Your task to perform on an android device: turn on improve location accuracy Image 0: 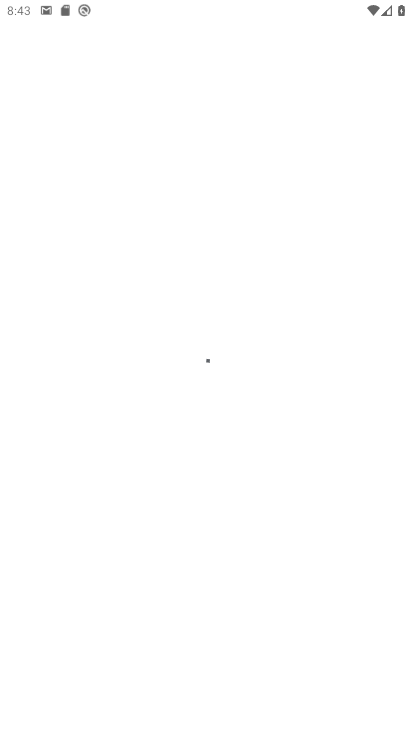
Step 0: press home button
Your task to perform on an android device: turn on improve location accuracy Image 1: 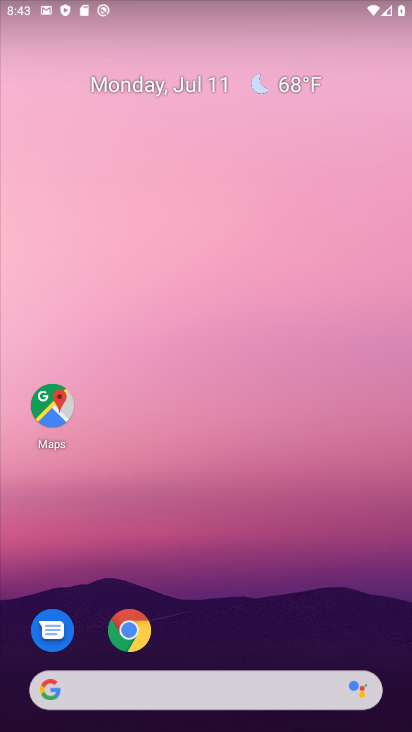
Step 1: drag from (195, 494) to (257, 18)
Your task to perform on an android device: turn on improve location accuracy Image 2: 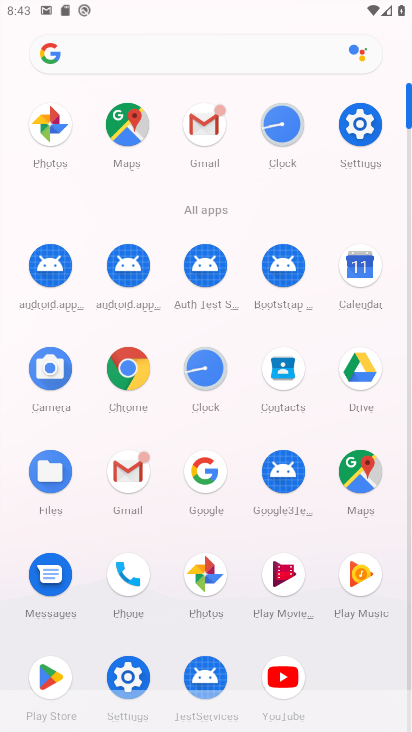
Step 2: click (129, 667)
Your task to perform on an android device: turn on improve location accuracy Image 3: 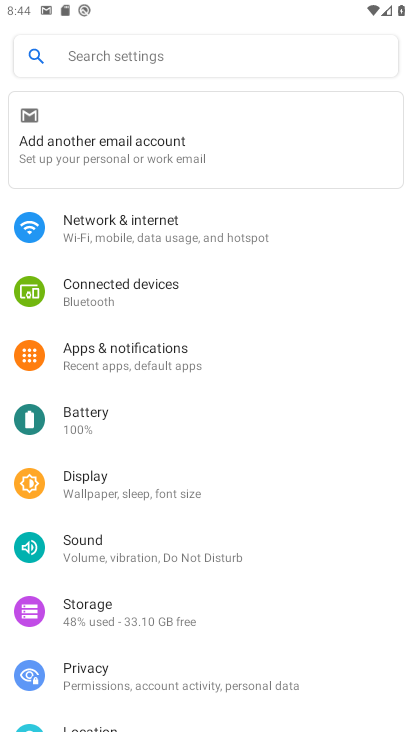
Step 3: drag from (149, 502) to (179, 216)
Your task to perform on an android device: turn on improve location accuracy Image 4: 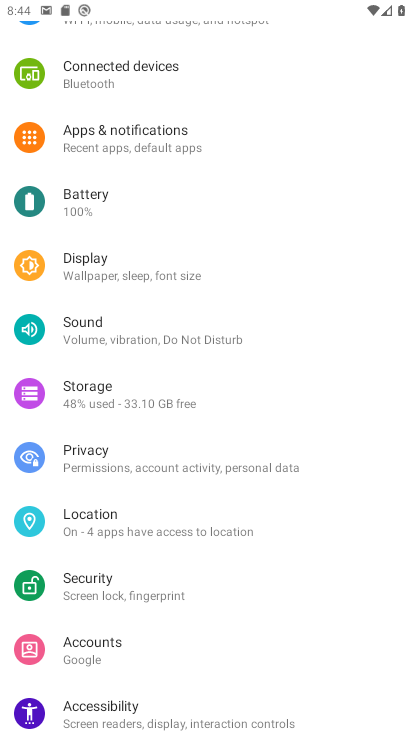
Step 4: click (121, 523)
Your task to perform on an android device: turn on improve location accuracy Image 5: 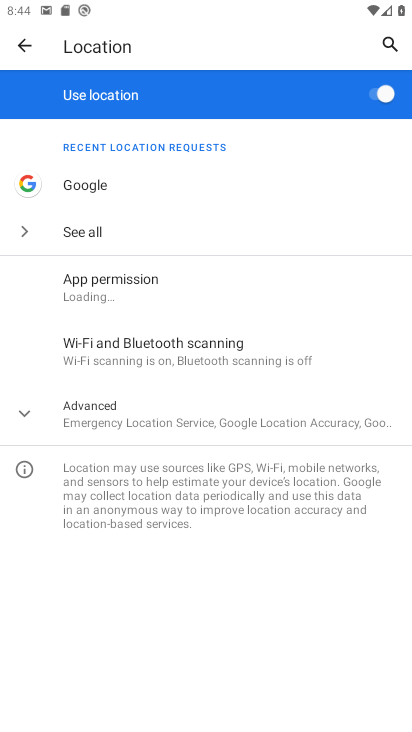
Step 5: click (223, 427)
Your task to perform on an android device: turn on improve location accuracy Image 6: 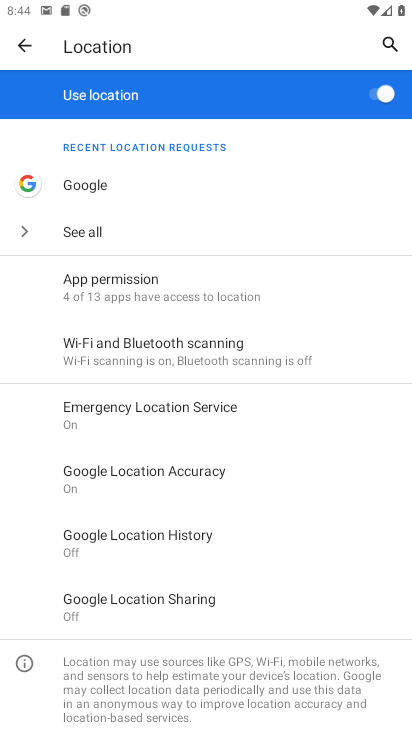
Step 6: click (184, 480)
Your task to perform on an android device: turn on improve location accuracy Image 7: 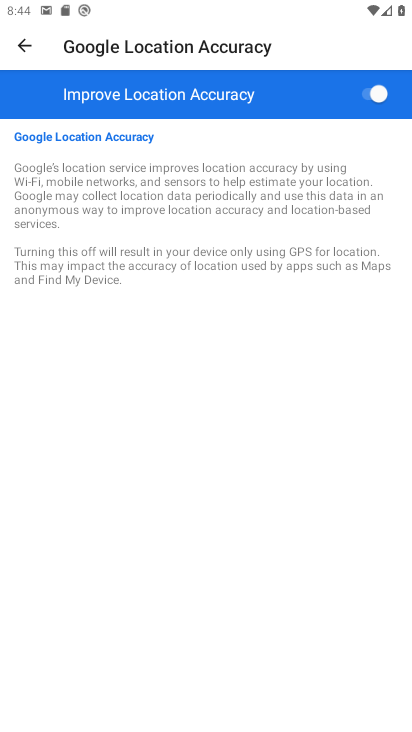
Step 7: task complete